Your task to perform on an android device: Show the shopping cart on walmart. Search for dell alienware on walmart, select the first entry, add it to the cart, then select checkout. Image 0: 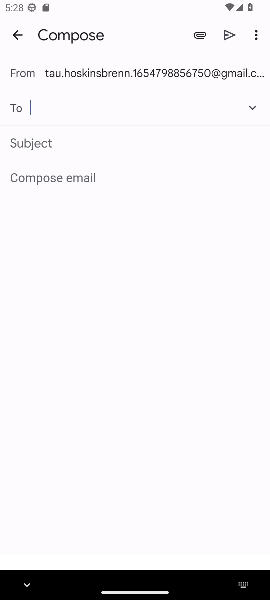
Step 0: press home button
Your task to perform on an android device: Show the shopping cart on walmart. Search for dell alienware on walmart, select the first entry, add it to the cart, then select checkout. Image 1: 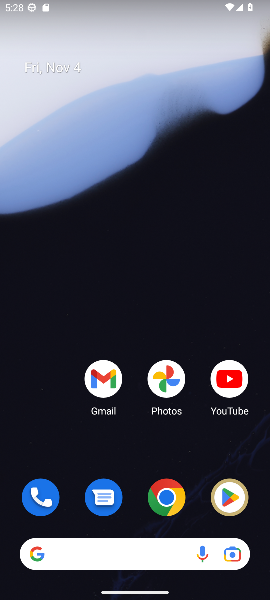
Step 1: click (166, 497)
Your task to perform on an android device: Show the shopping cart on walmart. Search for dell alienware on walmart, select the first entry, add it to the cart, then select checkout. Image 2: 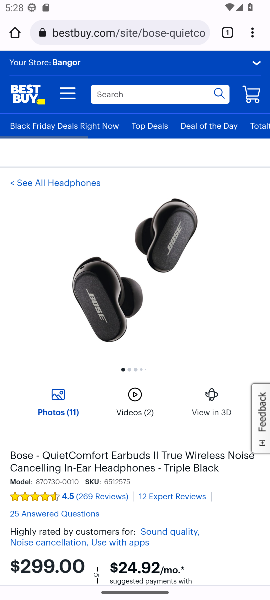
Step 2: click (89, 31)
Your task to perform on an android device: Show the shopping cart on walmart. Search for dell alienware on walmart, select the first entry, add it to the cart, then select checkout. Image 3: 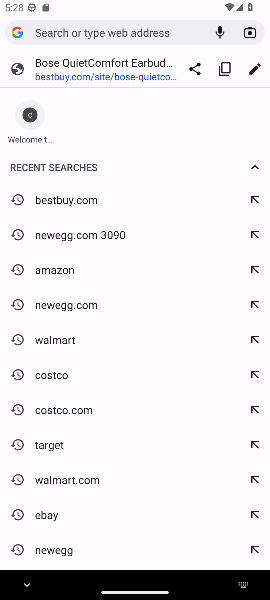
Step 3: click (41, 345)
Your task to perform on an android device: Show the shopping cart on walmart. Search for dell alienware on walmart, select the first entry, add it to the cart, then select checkout. Image 4: 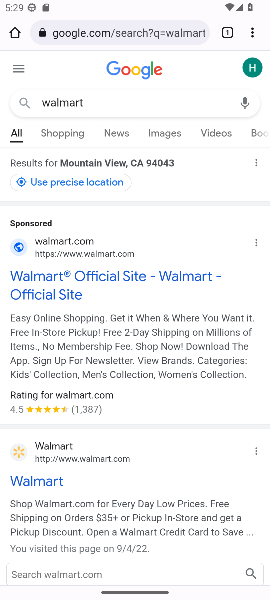
Step 4: click (60, 454)
Your task to perform on an android device: Show the shopping cart on walmart. Search for dell alienware on walmart, select the first entry, add it to the cart, then select checkout. Image 5: 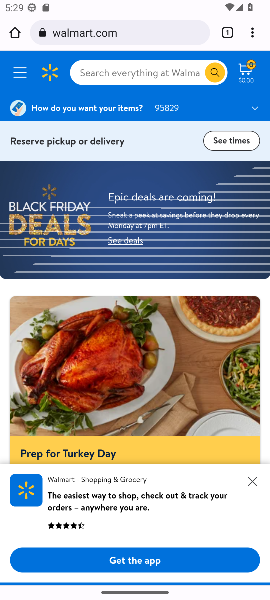
Step 5: click (250, 70)
Your task to perform on an android device: Show the shopping cart on walmart. Search for dell alienware on walmart, select the first entry, add it to the cart, then select checkout. Image 6: 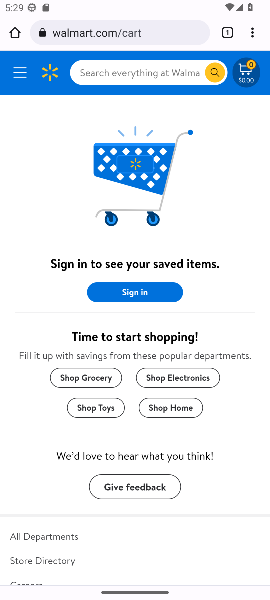
Step 6: click (100, 73)
Your task to perform on an android device: Show the shopping cart on walmart. Search for dell alienware on walmart, select the first entry, add it to the cart, then select checkout. Image 7: 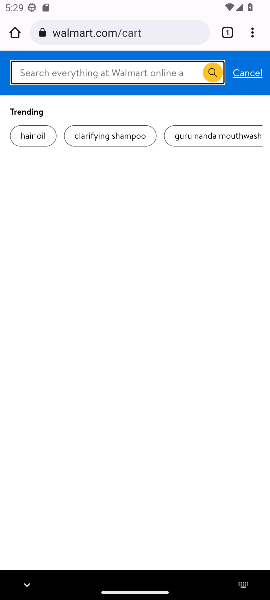
Step 7: type "dell alienware "
Your task to perform on an android device: Show the shopping cart on walmart. Search for dell alienware on walmart, select the first entry, add it to the cart, then select checkout. Image 8: 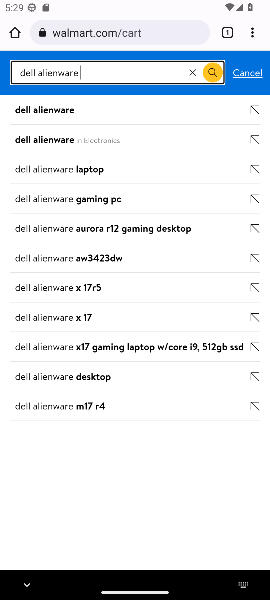
Step 8: click (38, 112)
Your task to perform on an android device: Show the shopping cart on walmart. Search for dell alienware on walmart, select the first entry, add it to the cart, then select checkout. Image 9: 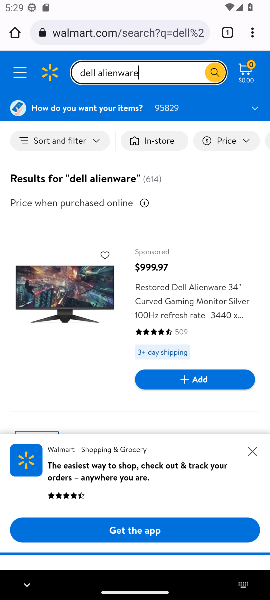
Step 9: click (100, 318)
Your task to perform on an android device: Show the shopping cart on walmart. Search for dell alienware on walmart, select the first entry, add it to the cart, then select checkout. Image 10: 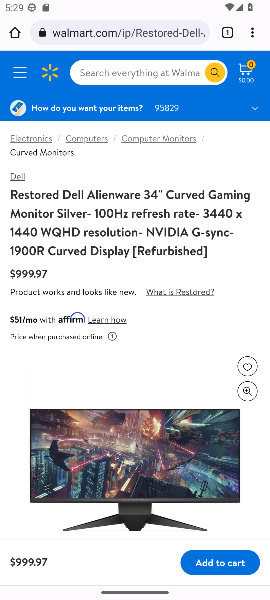
Step 10: click (213, 563)
Your task to perform on an android device: Show the shopping cart on walmart. Search for dell alienware on walmart, select the first entry, add it to the cart, then select checkout. Image 11: 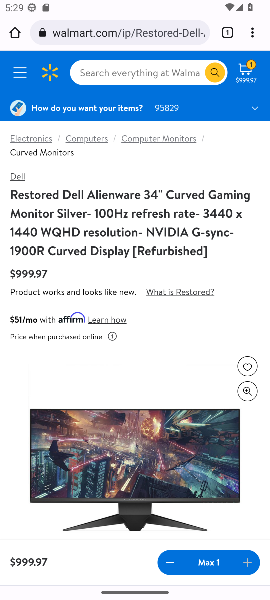
Step 11: click (242, 73)
Your task to perform on an android device: Show the shopping cart on walmart. Search for dell alienware on walmart, select the first entry, add it to the cart, then select checkout. Image 12: 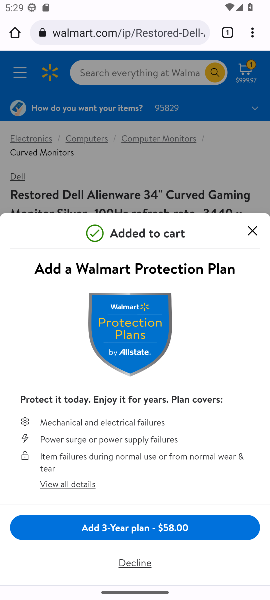
Step 12: click (259, 237)
Your task to perform on an android device: Show the shopping cart on walmart. Search for dell alienware on walmart, select the first entry, add it to the cart, then select checkout. Image 13: 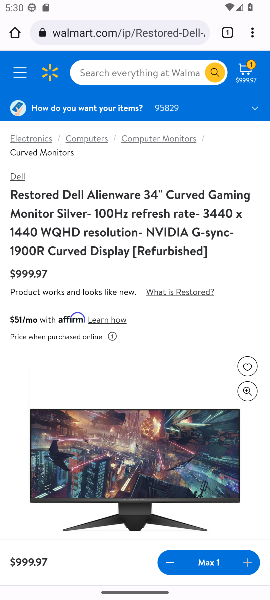
Step 13: click (249, 75)
Your task to perform on an android device: Show the shopping cart on walmart. Search for dell alienware on walmart, select the first entry, add it to the cart, then select checkout. Image 14: 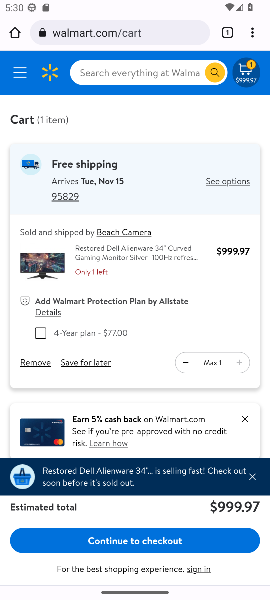
Step 14: click (131, 540)
Your task to perform on an android device: Show the shopping cart on walmart. Search for dell alienware on walmart, select the first entry, add it to the cart, then select checkout. Image 15: 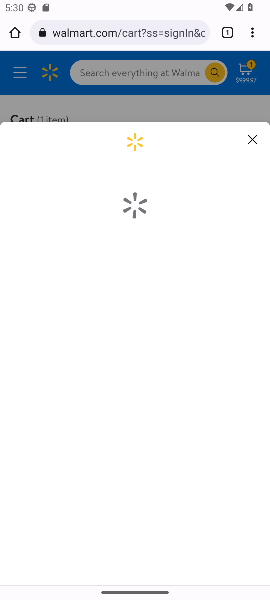
Step 15: task complete